Your task to perform on an android device: turn on wifi Image 0: 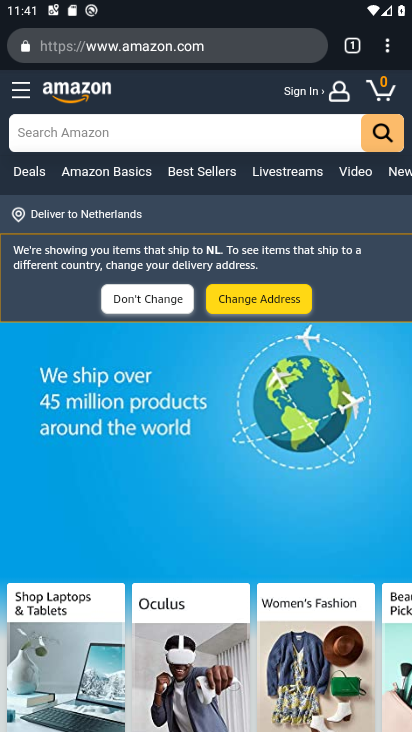
Step 0: press home button
Your task to perform on an android device: turn on wifi Image 1: 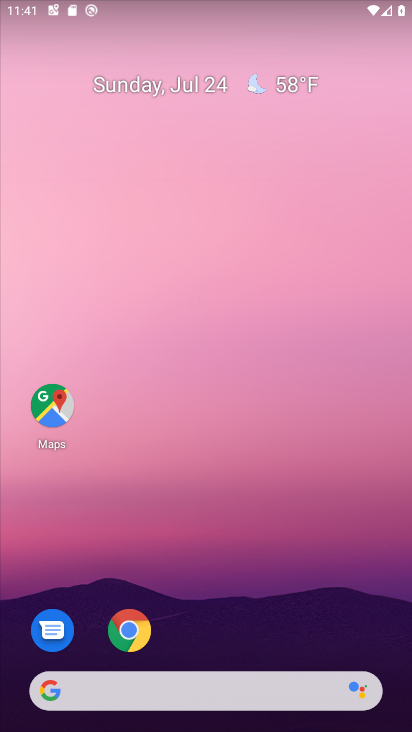
Step 1: drag from (175, 625) to (175, 131)
Your task to perform on an android device: turn on wifi Image 2: 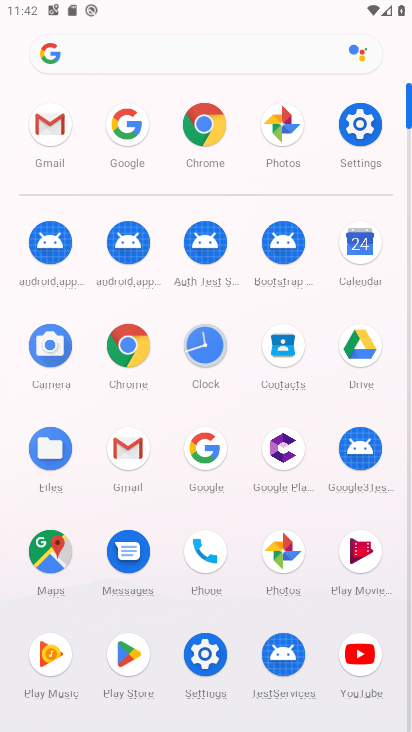
Step 2: click (355, 126)
Your task to perform on an android device: turn on wifi Image 3: 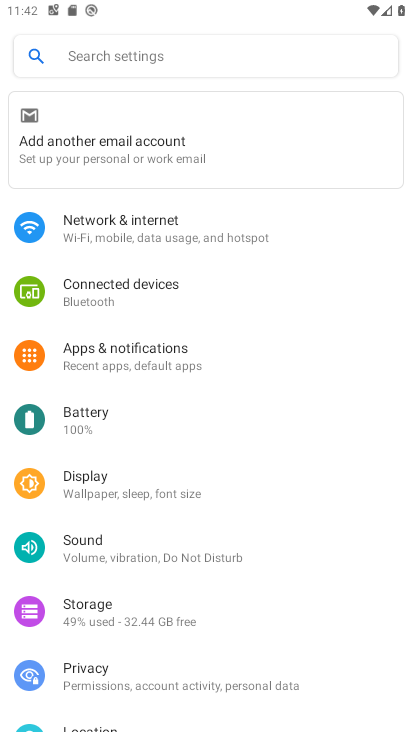
Step 3: click (175, 227)
Your task to perform on an android device: turn on wifi Image 4: 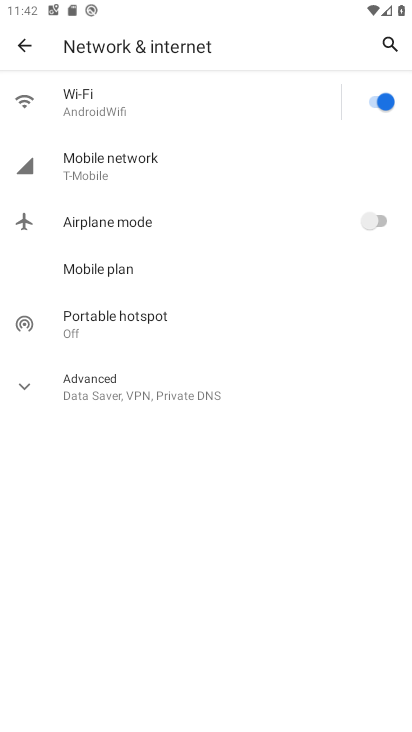
Step 4: task complete